Your task to perform on an android device: open device folders in google photos Image 0: 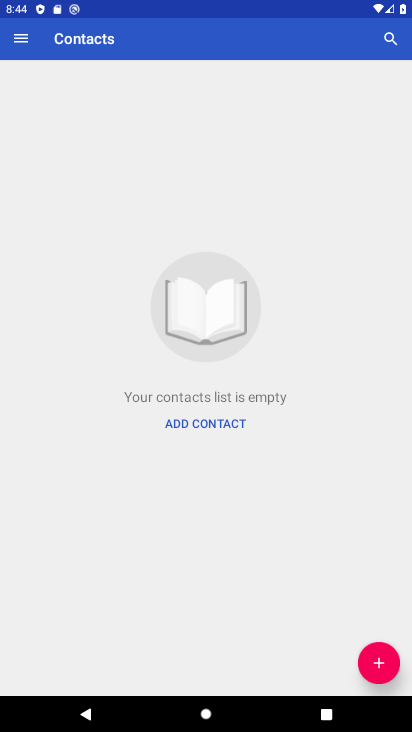
Step 0: press home button
Your task to perform on an android device: open device folders in google photos Image 1: 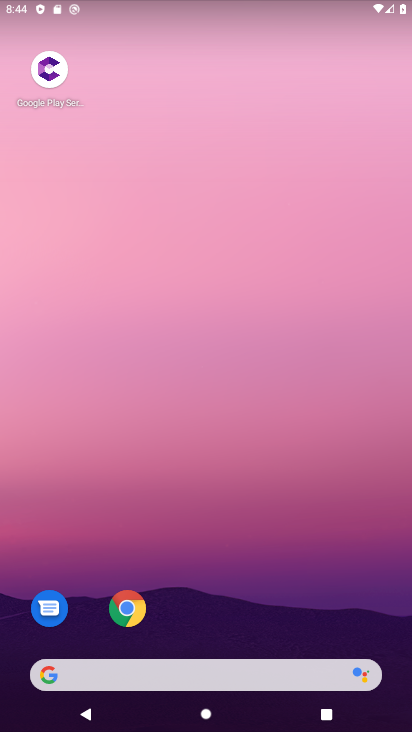
Step 1: drag from (336, 624) to (243, 144)
Your task to perform on an android device: open device folders in google photos Image 2: 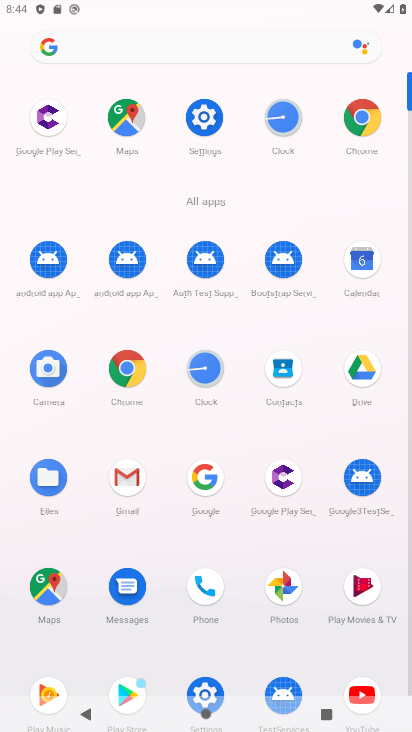
Step 2: click (299, 590)
Your task to perform on an android device: open device folders in google photos Image 3: 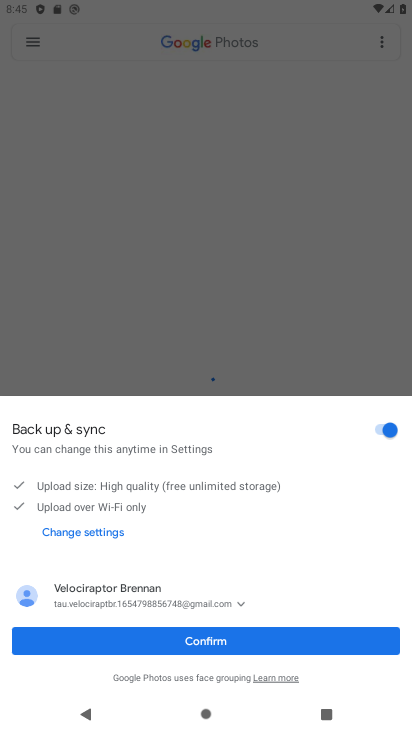
Step 3: click (299, 646)
Your task to perform on an android device: open device folders in google photos Image 4: 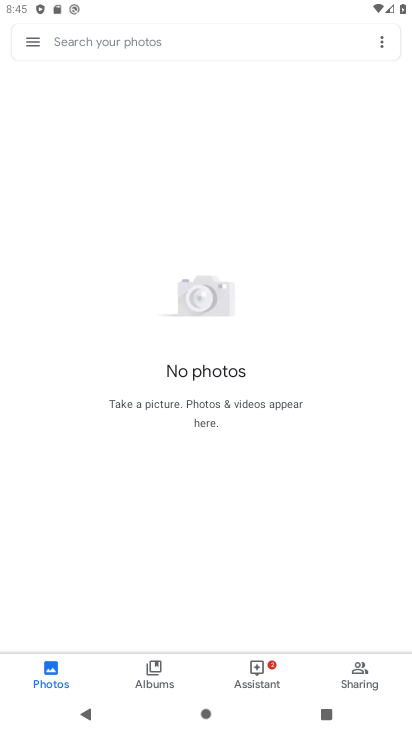
Step 4: click (36, 46)
Your task to perform on an android device: open device folders in google photos Image 5: 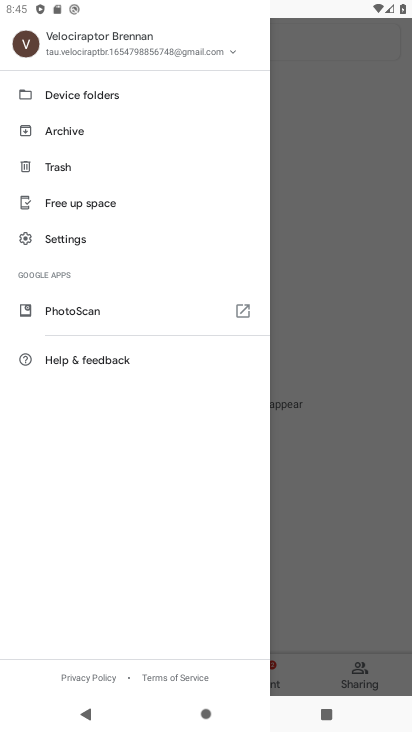
Step 5: click (70, 90)
Your task to perform on an android device: open device folders in google photos Image 6: 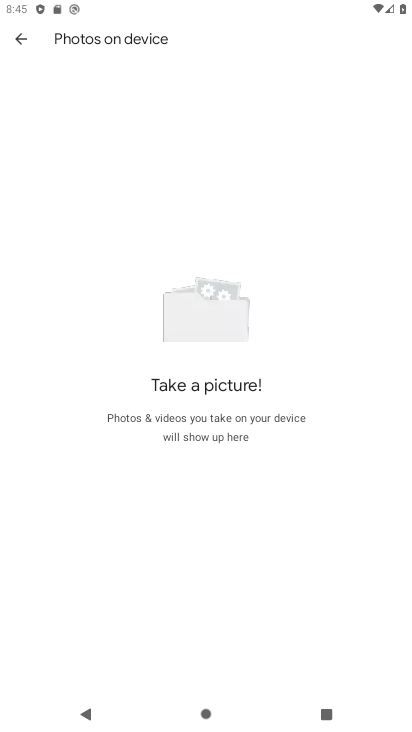
Step 6: task complete